Your task to perform on an android device: empty trash in google photos Image 0: 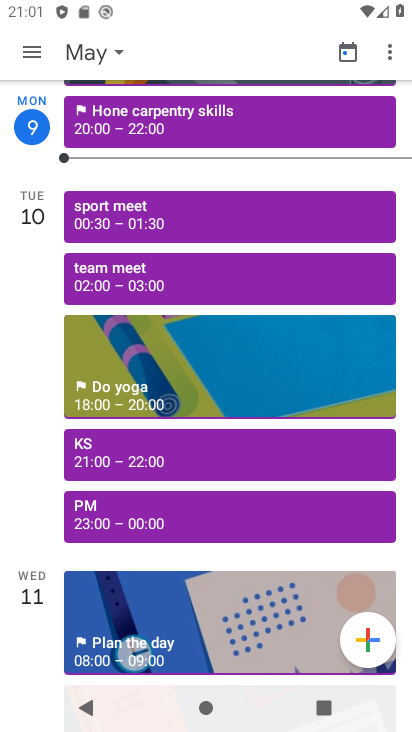
Step 0: press home button
Your task to perform on an android device: empty trash in google photos Image 1: 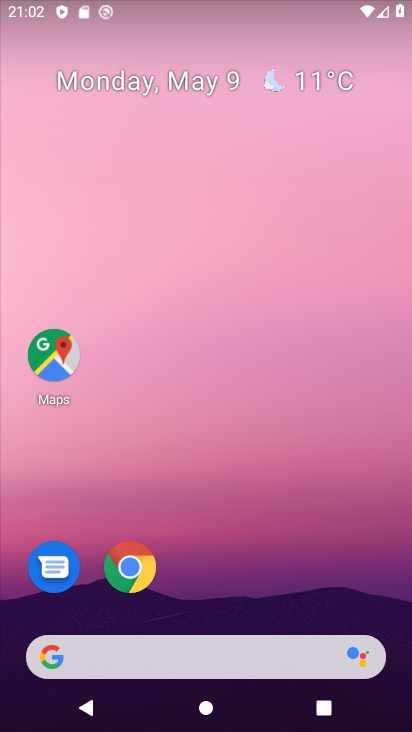
Step 1: drag from (247, 550) to (279, 99)
Your task to perform on an android device: empty trash in google photos Image 2: 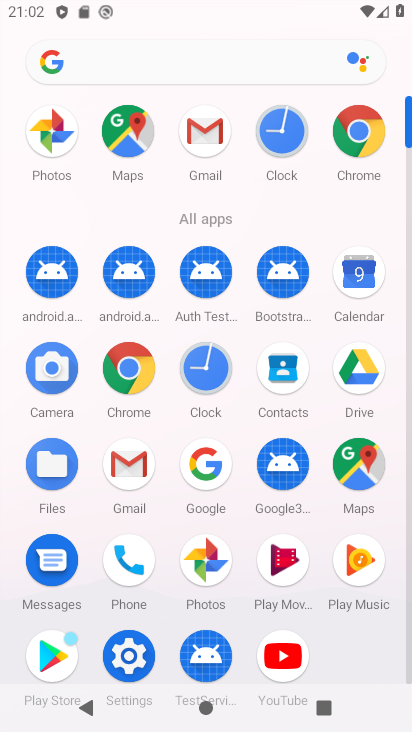
Step 2: click (62, 135)
Your task to perform on an android device: empty trash in google photos Image 3: 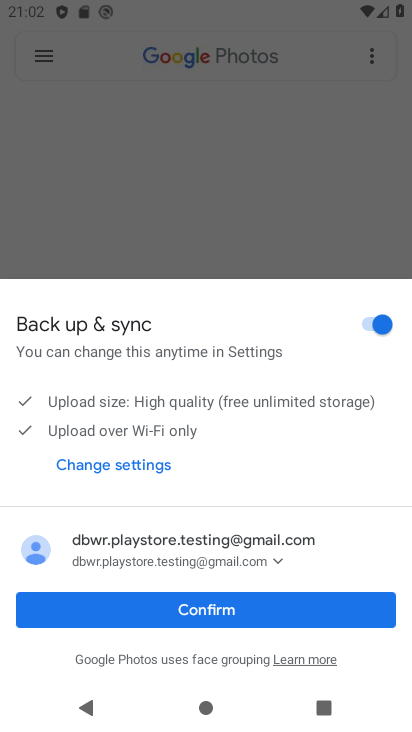
Step 3: click (245, 612)
Your task to perform on an android device: empty trash in google photos Image 4: 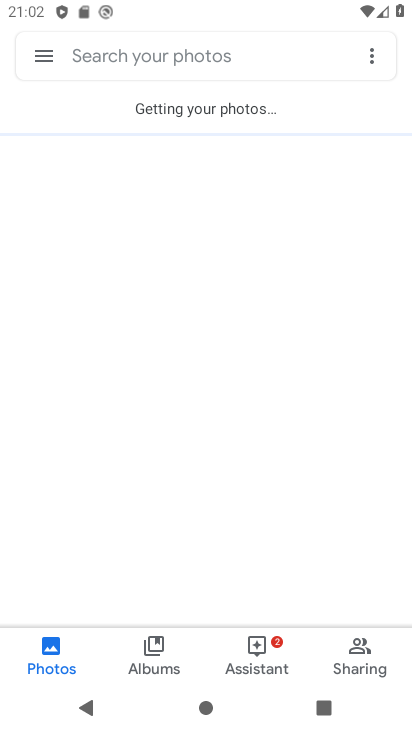
Step 4: click (42, 48)
Your task to perform on an android device: empty trash in google photos Image 5: 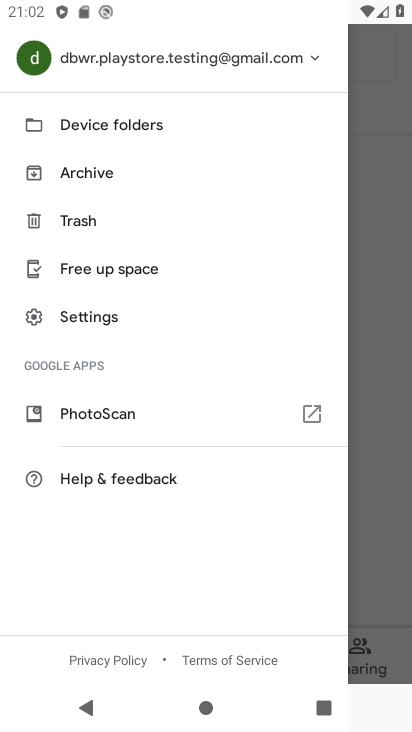
Step 5: click (110, 321)
Your task to perform on an android device: empty trash in google photos Image 6: 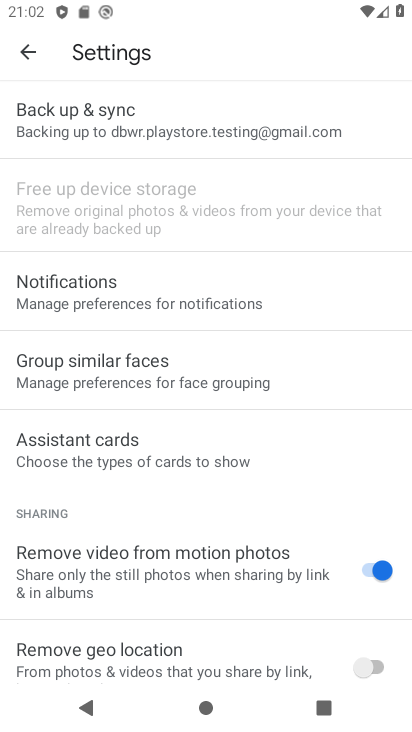
Step 6: press back button
Your task to perform on an android device: empty trash in google photos Image 7: 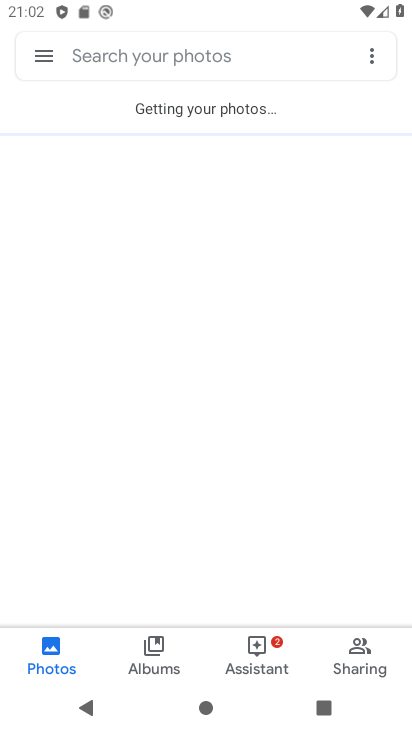
Step 7: click (33, 59)
Your task to perform on an android device: empty trash in google photos Image 8: 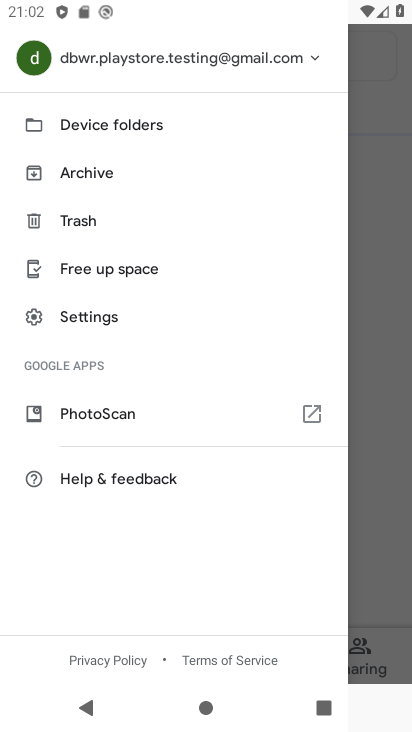
Step 8: click (80, 223)
Your task to perform on an android device: empty trash in google photos Image 9: 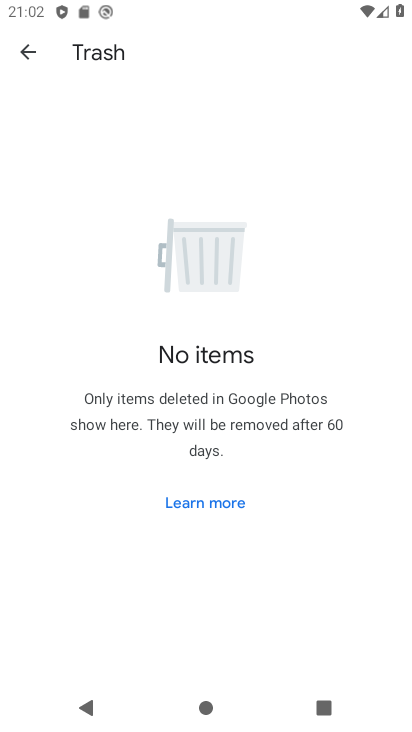
Step 9: task complete